Your task to perform on an android device: What's on my calendar today? Image 0: 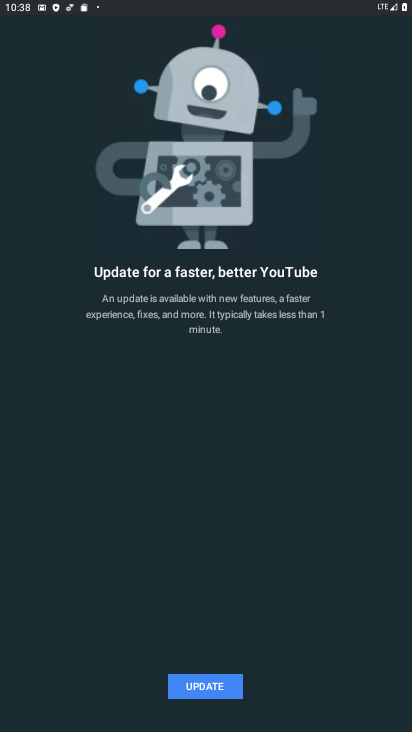
Step 0: press home button
Your task to perform on an android device: What's on my calendar today? Image 1: 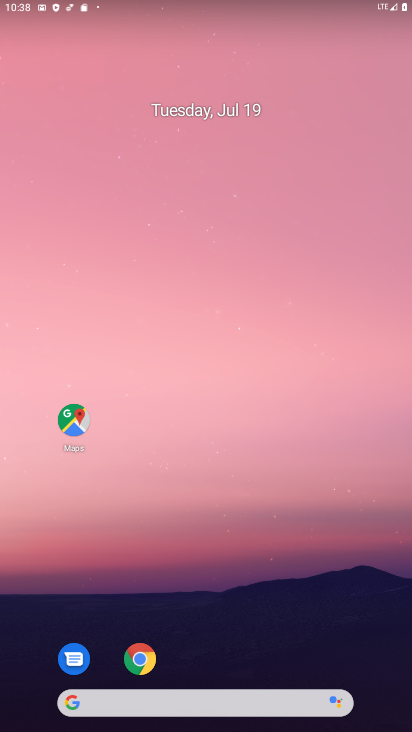
Step 1: drag from (263, 593) to (279, 275)
Your task to perform on an android device: What's on my calendar today? Image 2: 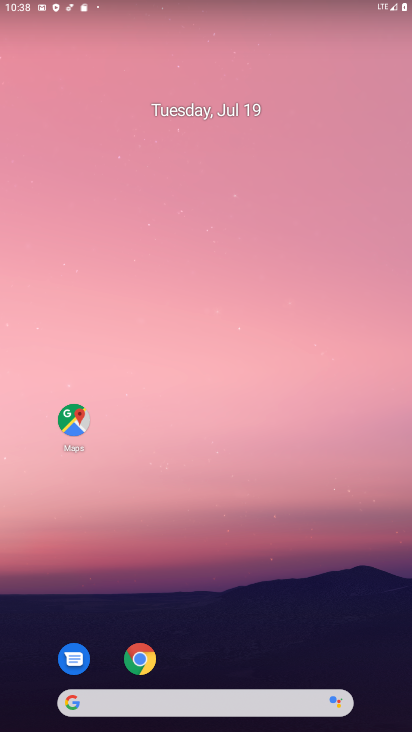
Step 2: drag from (263, 626) to (308, 104)
Your task to perform on an android device: What's on my calendar today? Image 3: 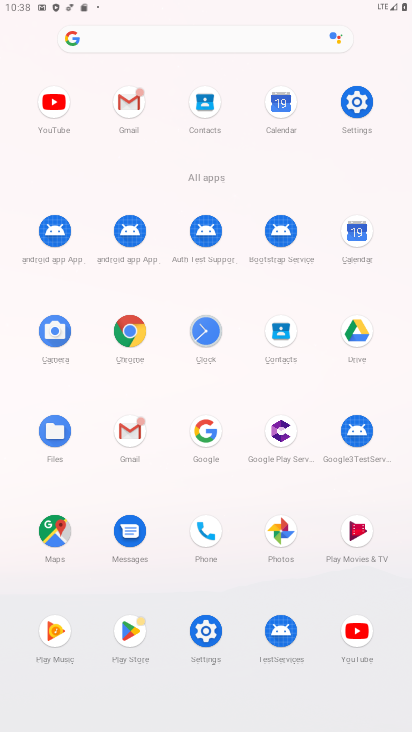
Step 3: click (355, 236)
Your task to perform on an android device: What's on my calendar today? Image 4: 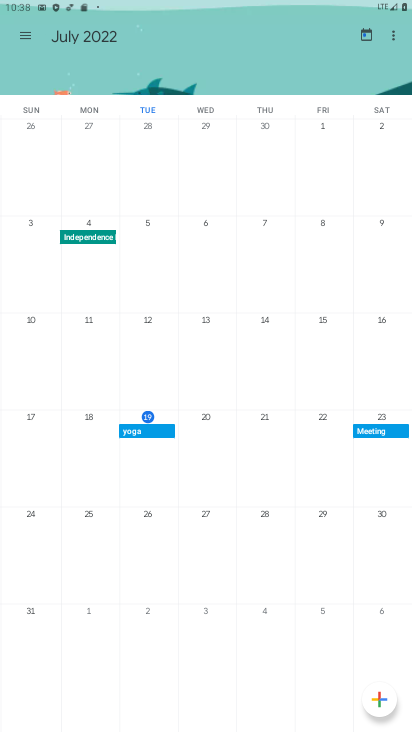
Step 4: task complete